Your task to perform on an android device: Go to eBay Image 0: 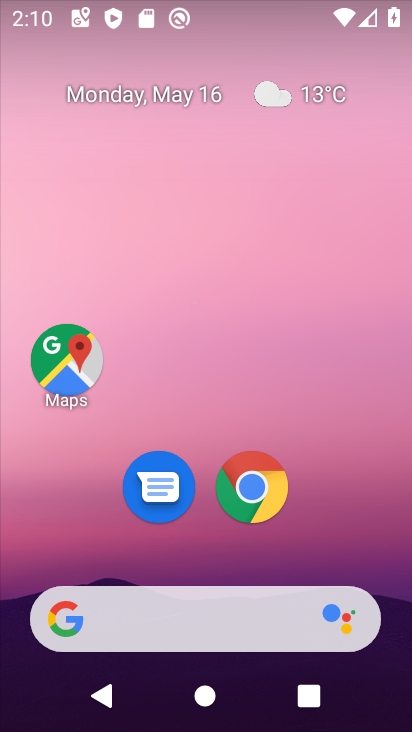
Step 0: drag from (350, 527) to (280, 92)
Your task to perform on an android device: Go to eBay Image 1: 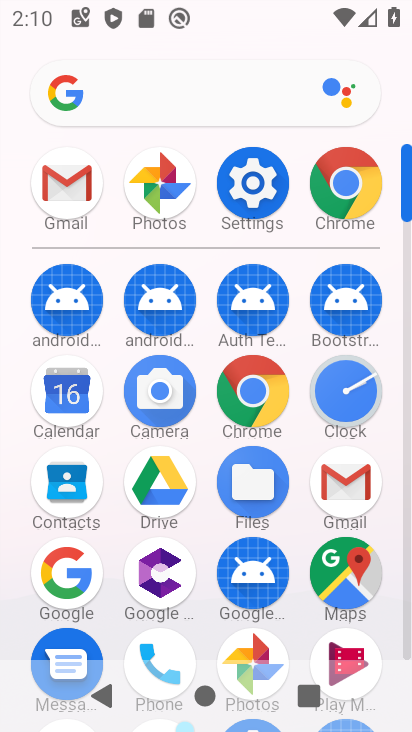
Step 1: drag from (23, 466) to (54, 229)
Your task to perform on an android device: Go to eBay Image 2: 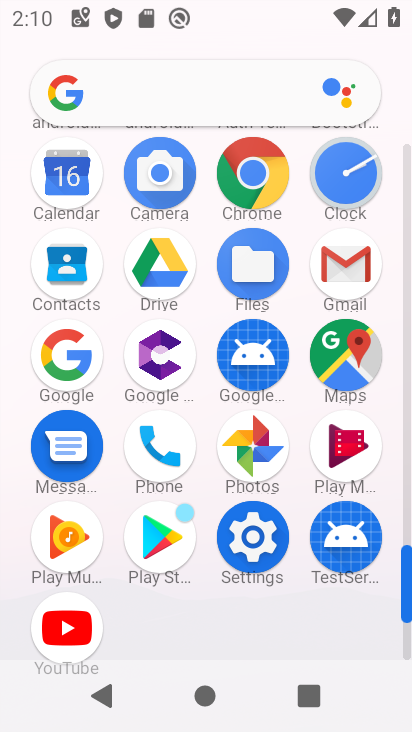
Step 2: click (246, 161)
Your task to perform on an android device: Go to eBay Image 3: 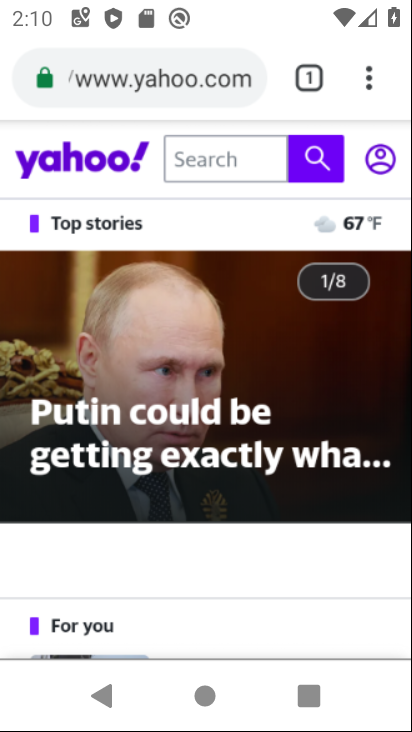
Step 3: click (189, 68)
Your task to perform on an android device: Go to eBay Image 4: 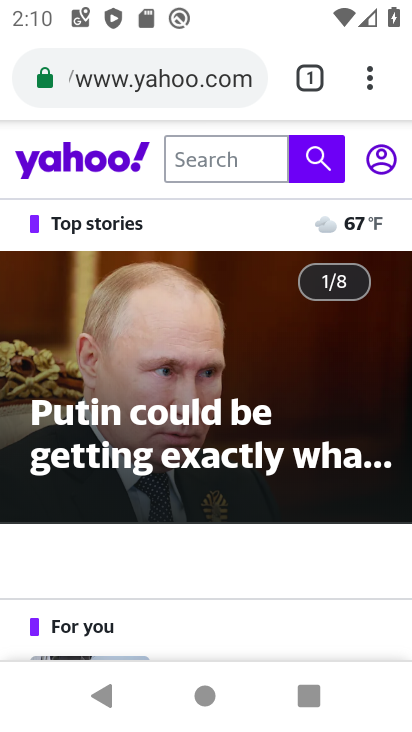
Step 4: click (158, 71)
Your task to perform on an android device: Go to eBay Image 5: 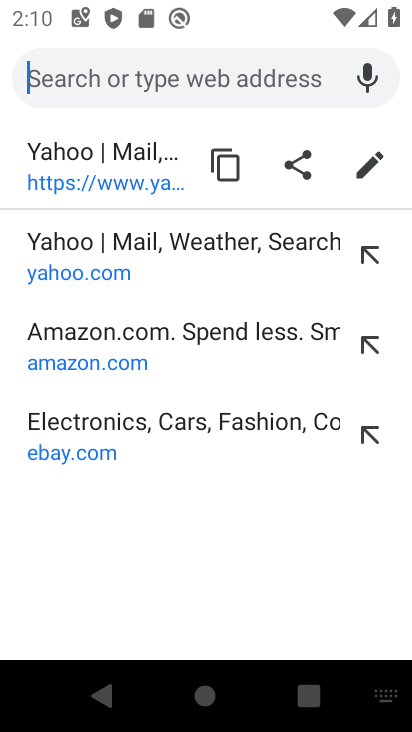
Step 5: type "eBay"
Your task to perform on an android device: Go to eBay Image 6: 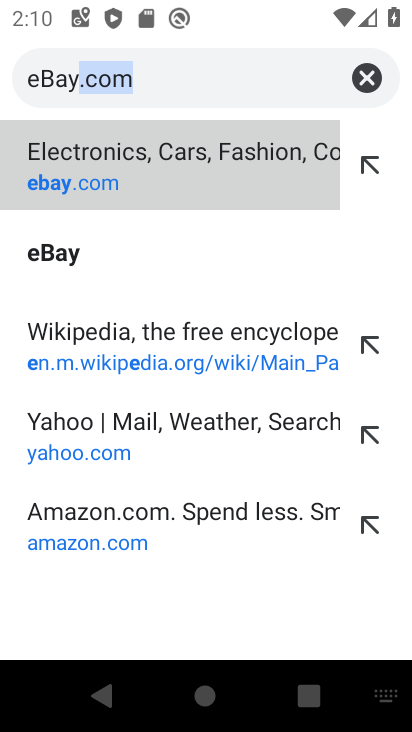
Step 6: type ""
Your task to perform on an android device: Go to eBay Image 7: 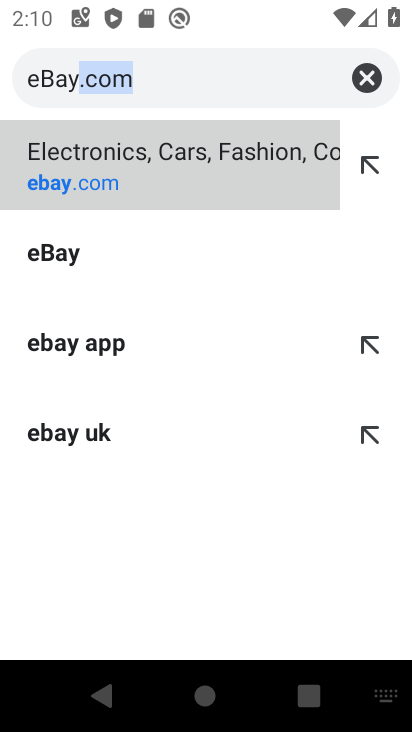
Step 7: click (139, 178)
Your task to perform on an android device: Go to eBay Image 8: 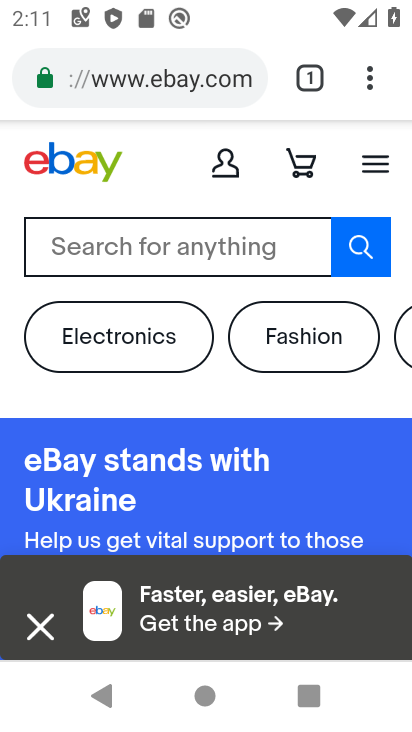
Step 8: task complete